Your task to perform on an android device: Open CNN.com Image 0: 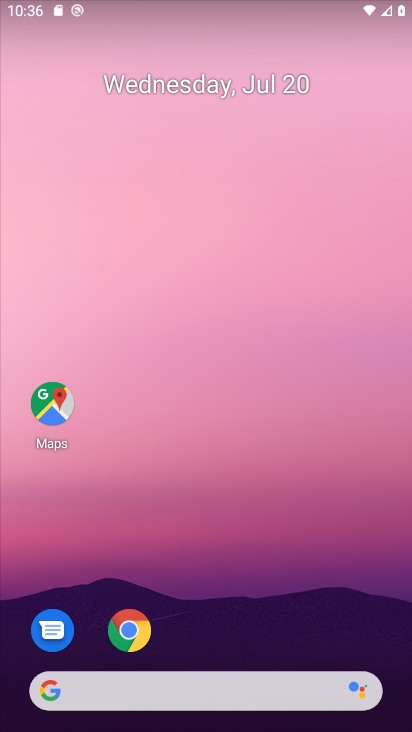
Step 0: drag from (253, 693) to (154, 165)
Your task to perform on an android device: Open CNN.com Image 1: 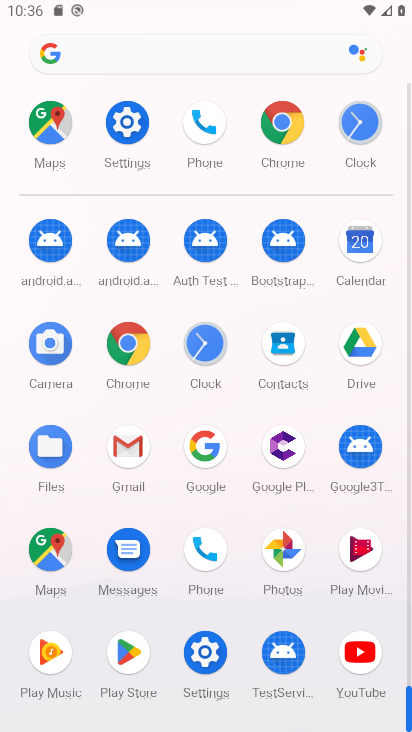
Step 1: click (123, 344)
Your task to perform on an android device: Open CNN.com Image 2: 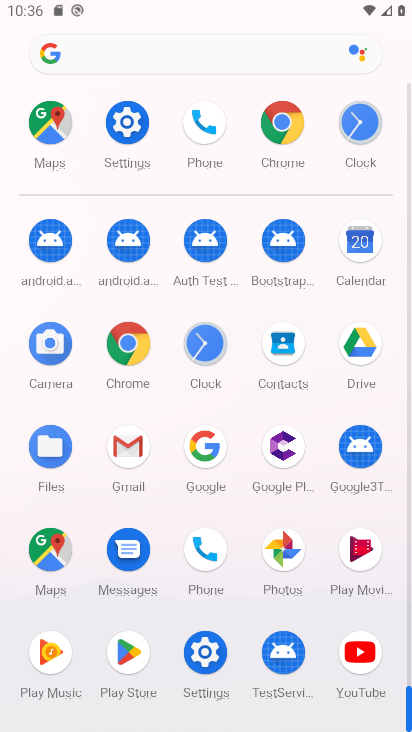
Step 2: click (123, 344)
Your task to perform on an android device: Open CNN.com Image 3: 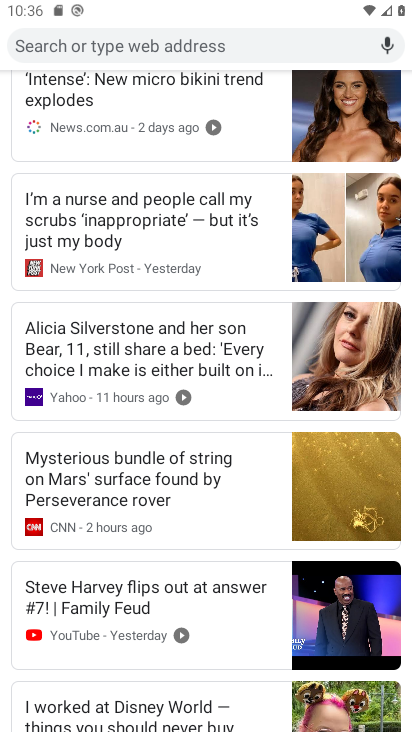
Step 3: drag from (169, 119) to (165, 471)
Your task to perform on an android device: Open CNN.com Image 4: 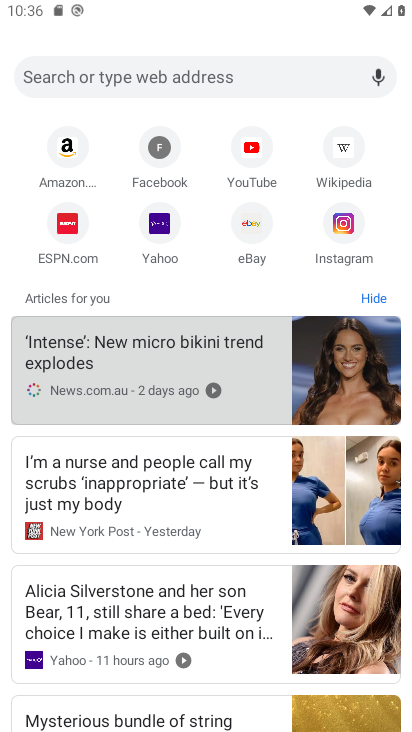
Step 4: drag from (149, 190) to (180, 374)
Your task to perform on an android device: Open CNN.com Image 5: 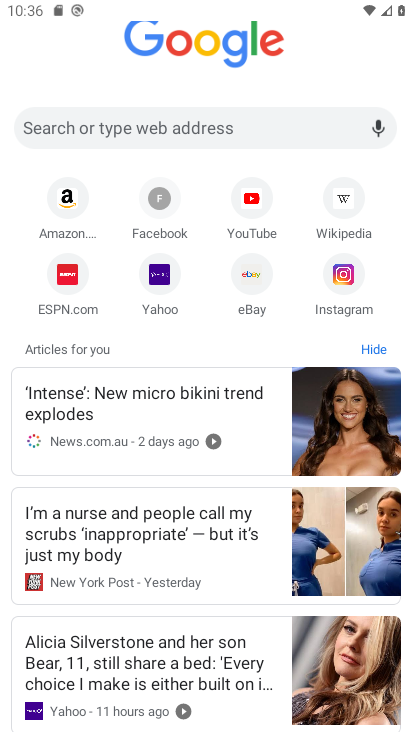
Step 5: drag from (148, 184) to (180, 500)
Your task to perform on an android device: Open CNN.com Image 6: 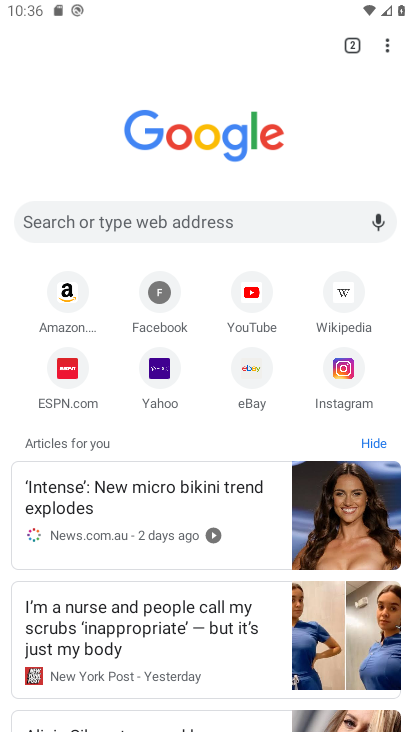
Step 6: click (70, 222)
Your task to perform on an android device: Open CNN.com Image 7: 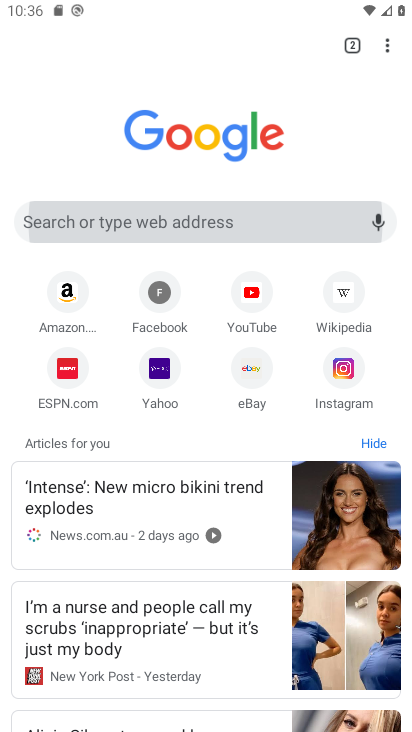
Step 7: click (69, 221)
Your task to perform on an android device: Open CNN.com Image 8: 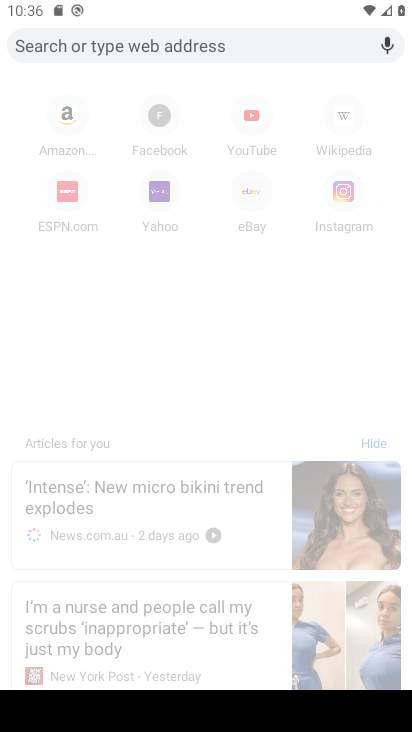
Step 8: type "CNN.com"
Your task to perform on an android device: Open CNN.com Image 9: 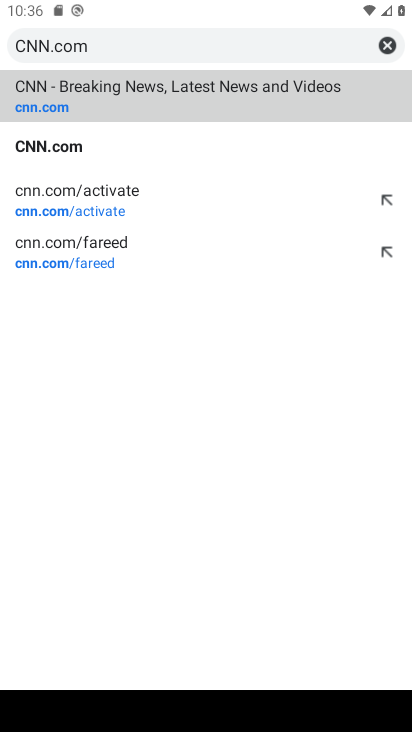
Step 9: click (98, 81)
Your task to perform on an android device: Open CNN.com Image 10: 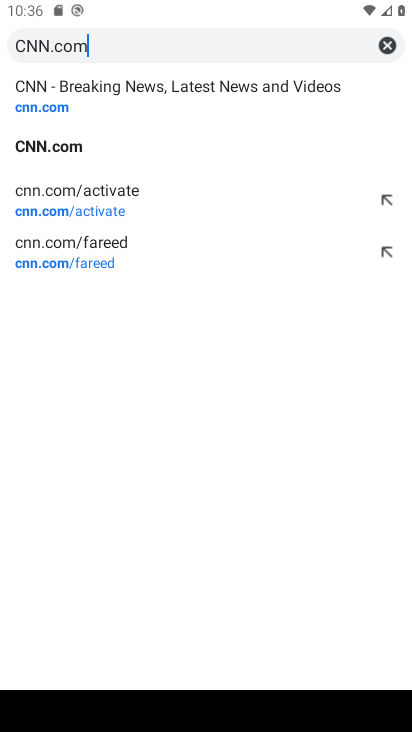
Step 10: click (97, 84)
Your task to perform on an android device: Open CNN.com Image 11: 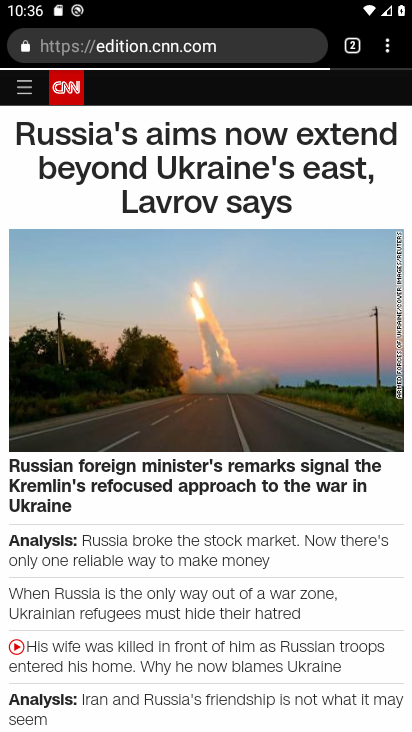
Step 11: task complete